Your task to perform on an android device: find photos in the google photos app Image 0: 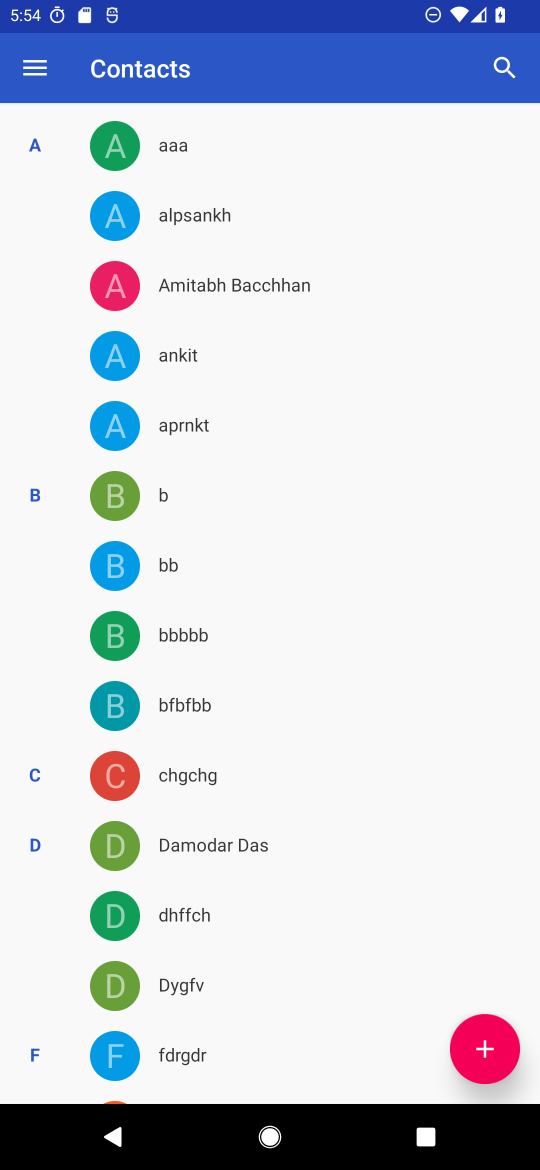
Step 0: press home button
Your task to perform on an android device: find photos in the google photos app Image 1: 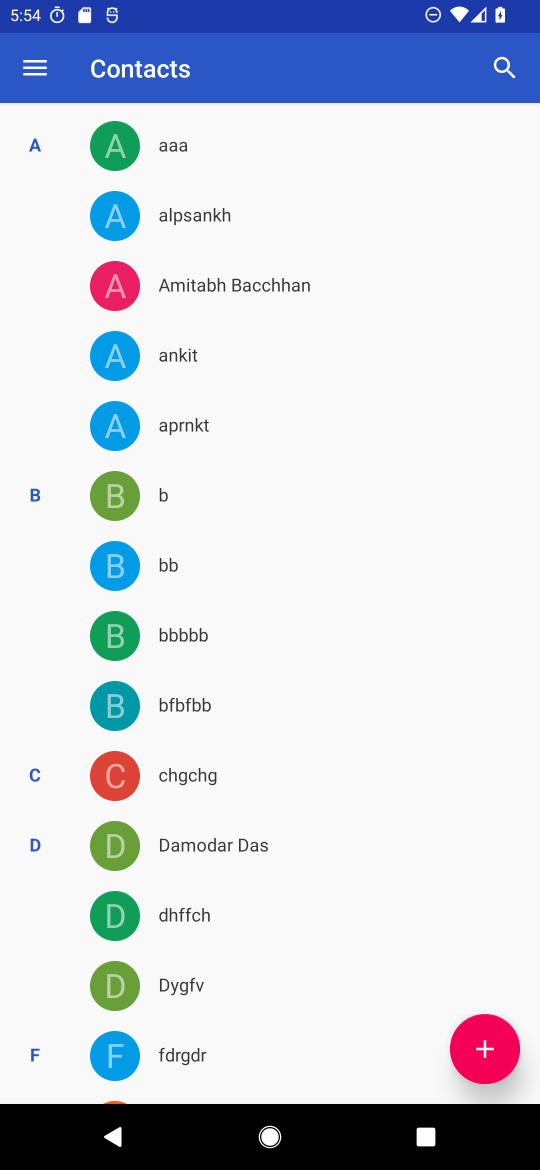
Step 1: press home button
Your task to perform on an android device: find photos in the google photos app Image 2: 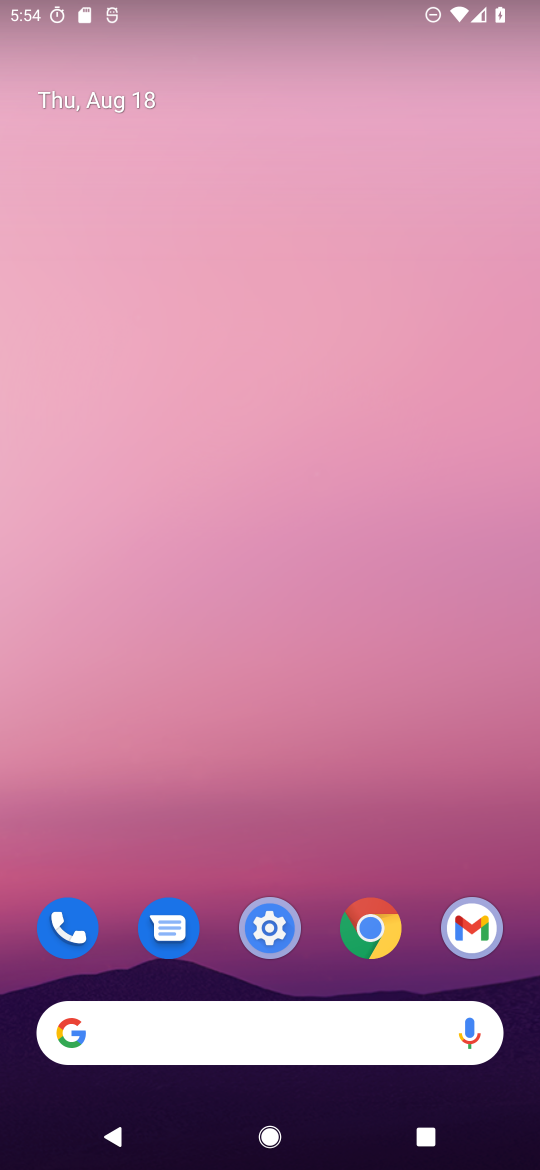
Step 2: drag from (275, 852) to (300, 24)
Your task to perform on an android device: find photos in the google photos app Image 3: 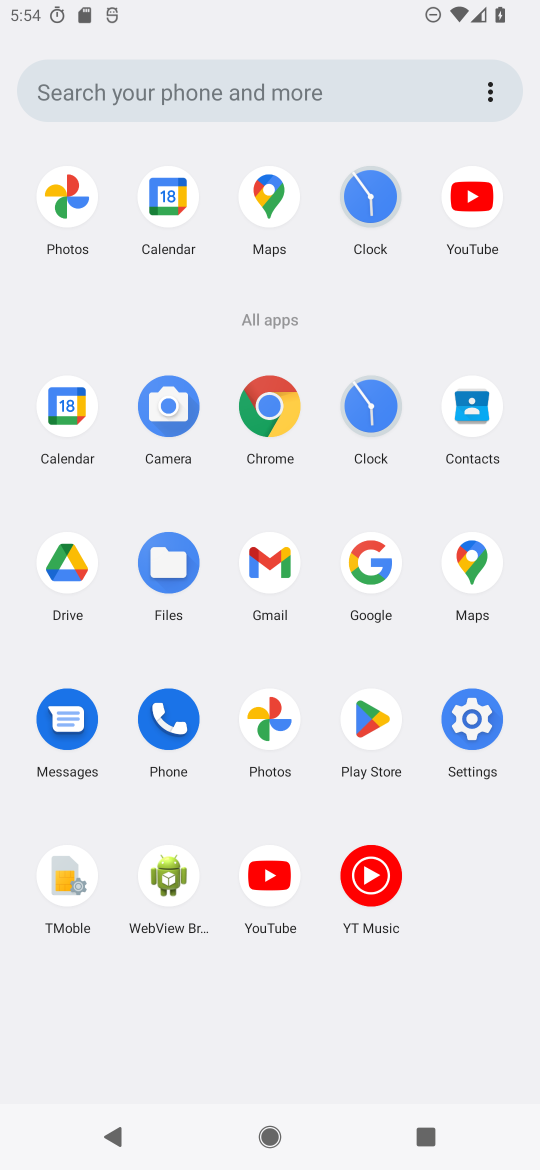
Step 3: click (259, 728)
Your task to perform on an android device: find photos in the google photos app Image 4: 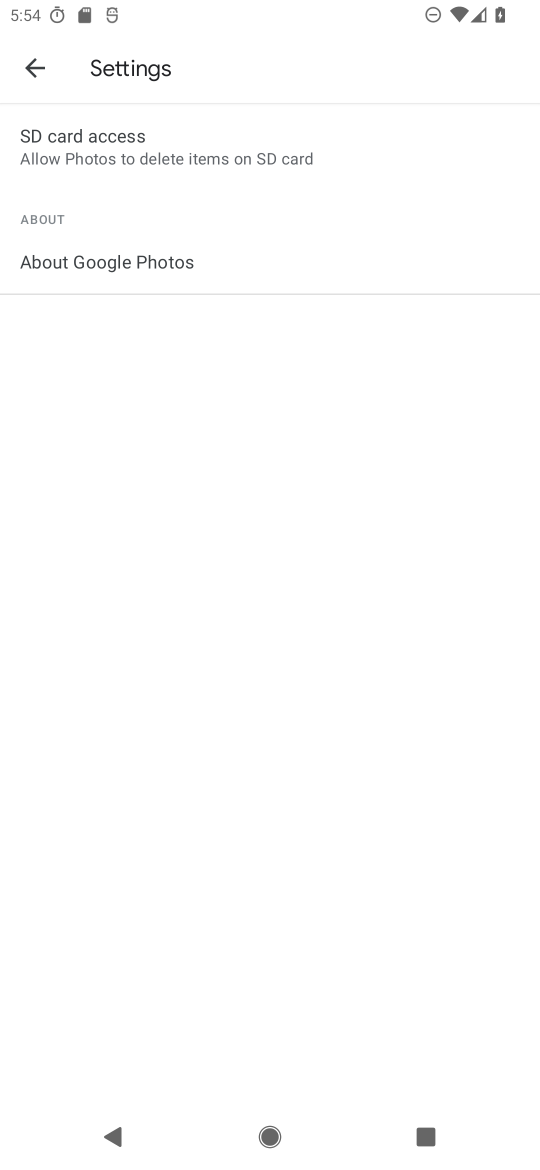
Step 4: press back button
Your task to perform on an android device: find photos in the google photos app Image 5: 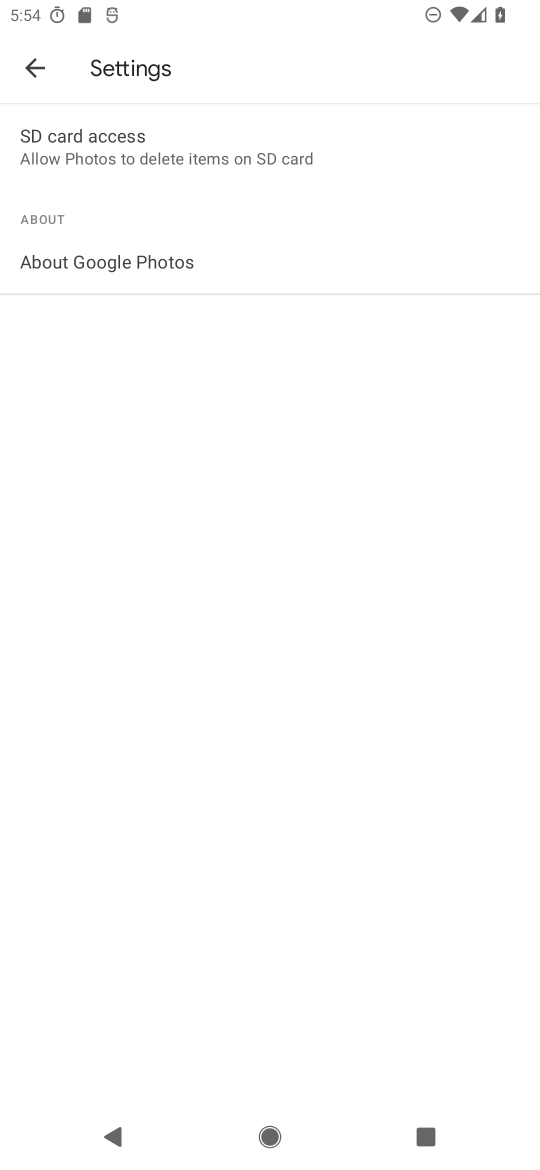
Step 5: press back button
Your task to perform on an android device: find photos in the google photos app Image 6: 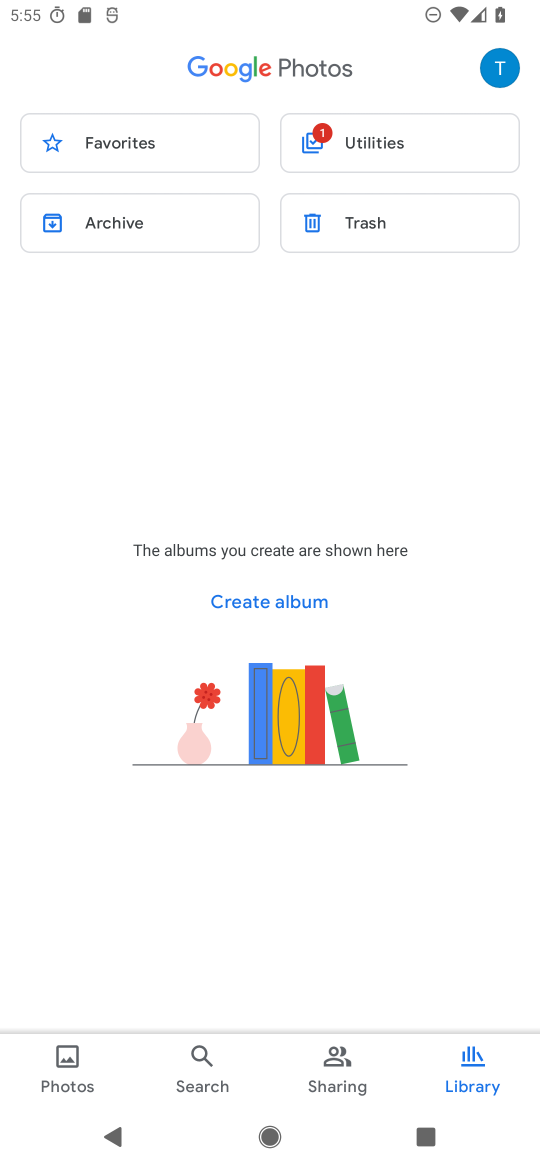
Step 6: click (65, 1074)
Your task to perform on an android device: find photos in the google photos app Image 7: 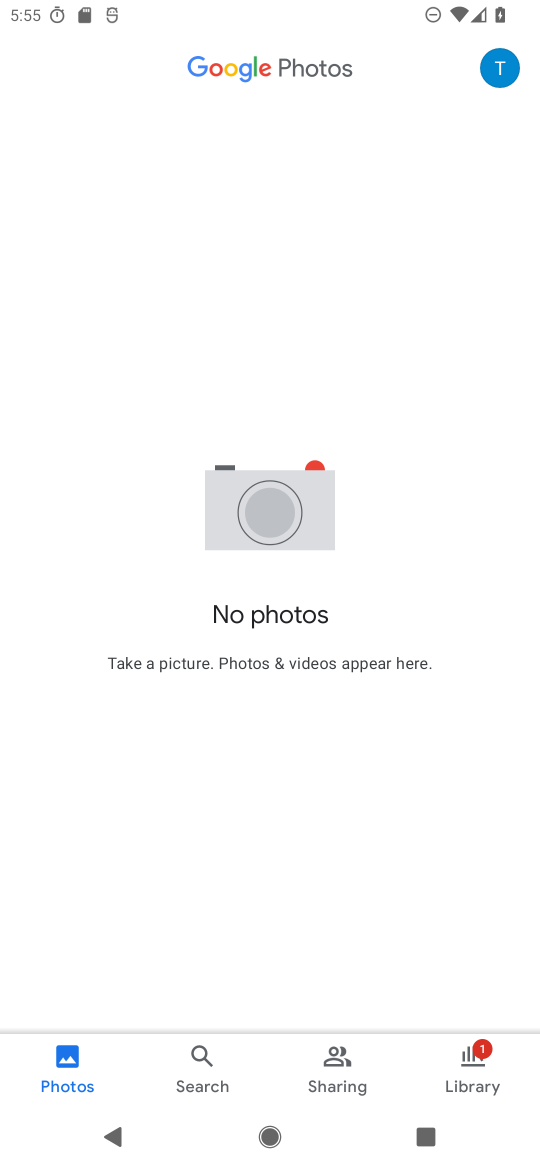
Step 7: task complete